Your task to perform on an android device: check storage Image 0: 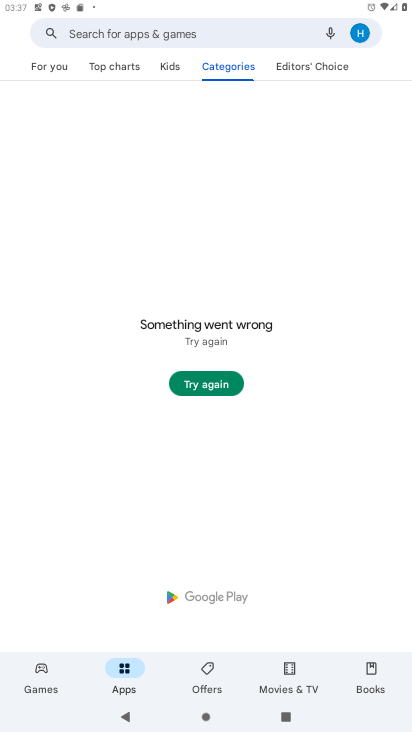
Step 0: press home button
Your task to perform on an android device: check storage Image 1: 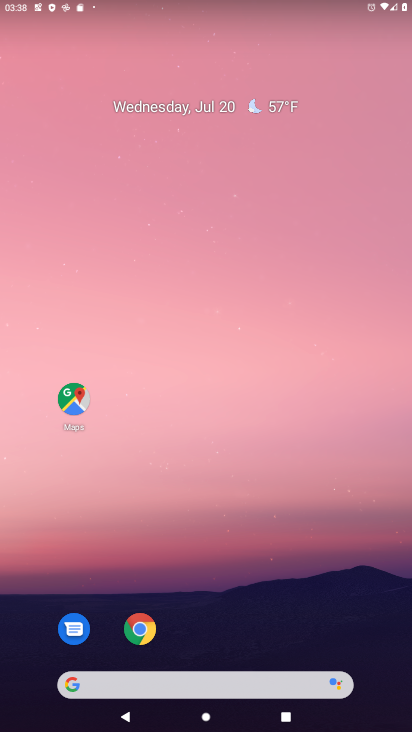
Step 1: drag from (359, 630) to (331, 178)
Your task to perform on an android device: check storage Image 2: 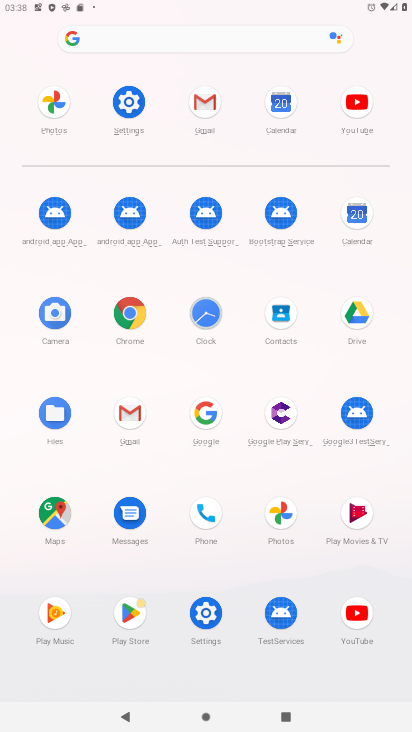
Step 2: click (205, 612)
Your task to perform on an android device: check storage Image 3: 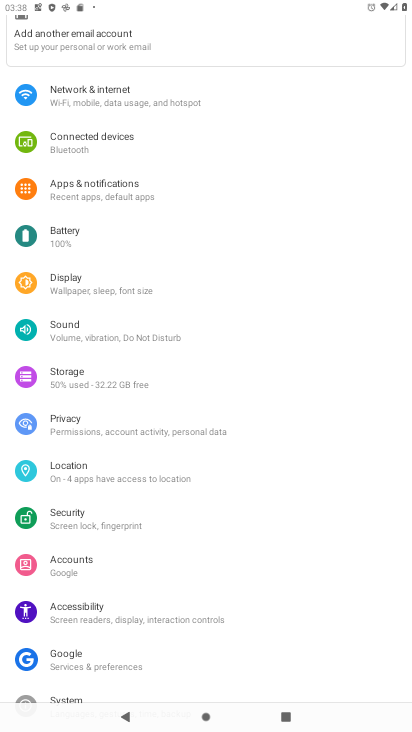
Step 3: click (64, 379)
Your task to perform on an android device: check storage Image 4: 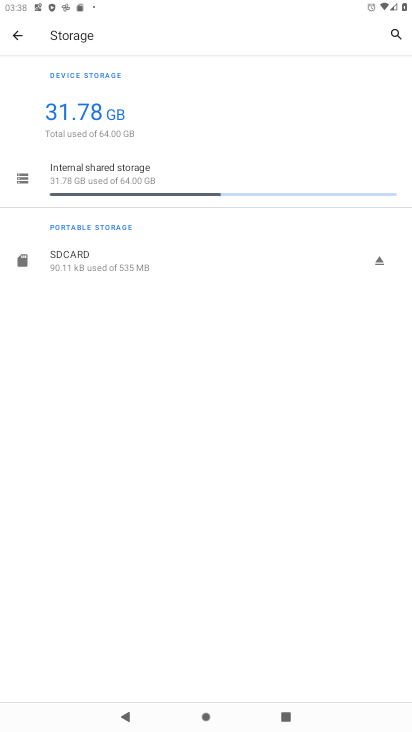
Step 4: task complete